Your task to perform on an android device: clear history in the chrome app Image 0: 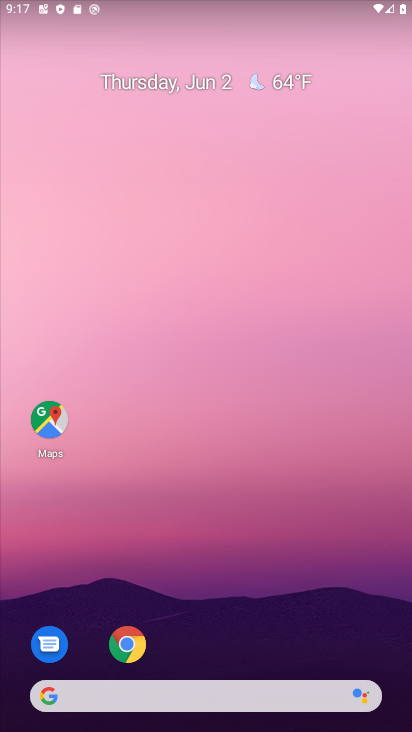
Step 0: press home button
Your task to perform on an android device: clear history in the chrome app Image 1: 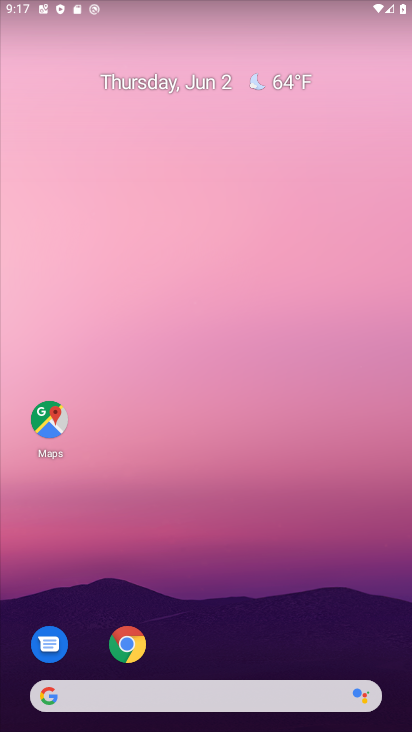
Step 1: click (118, 646)
Your task to perform on an android device: clear history in the chrome app Image 2: 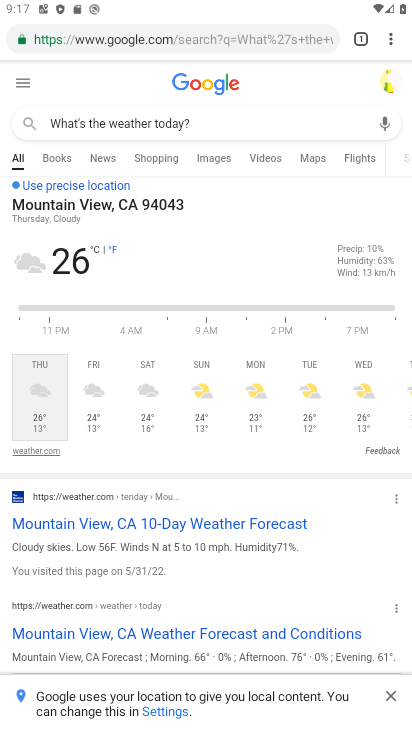
Step 2: drag from (389, 41) to (244, 235)
Your task to perform on an android device: clear history in the chrome app Image 3: 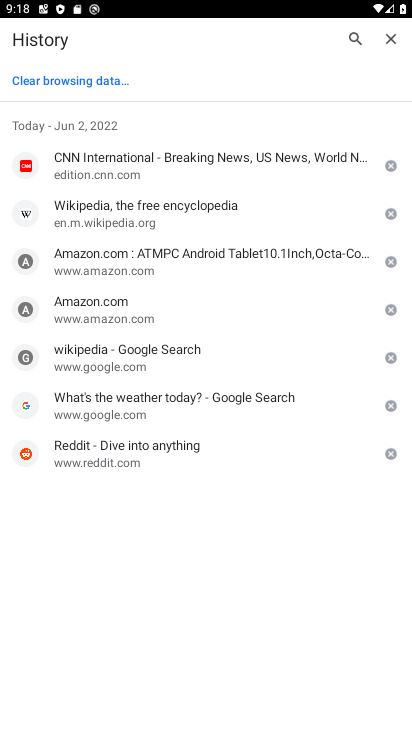
Step 3: click (63, 78)
Your task to perform on an android device: clear history in the chrome app Image 4: 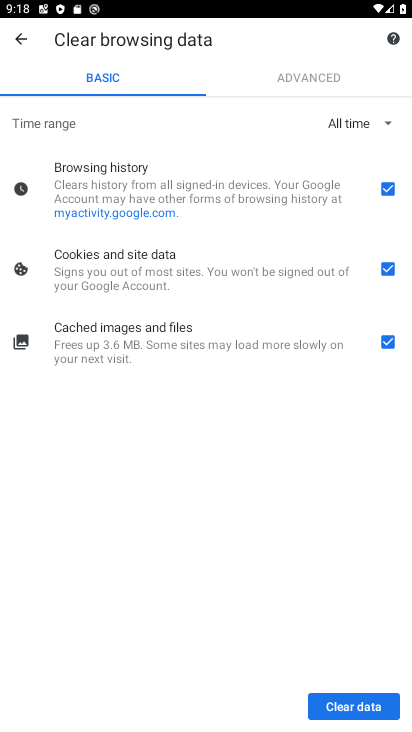
Step 4: click (337, 706)
Your task to perform on an android device: clear history in the chrome app Image 5: 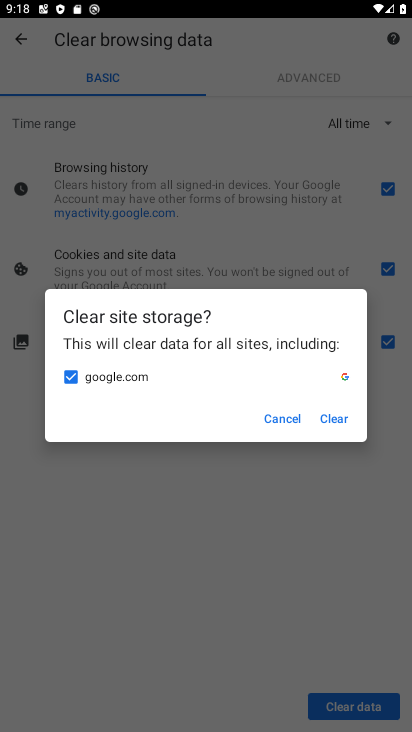
Step 5: click (340, 422)
Your task to perform on an android device: clear history in the chrome app Image 6: 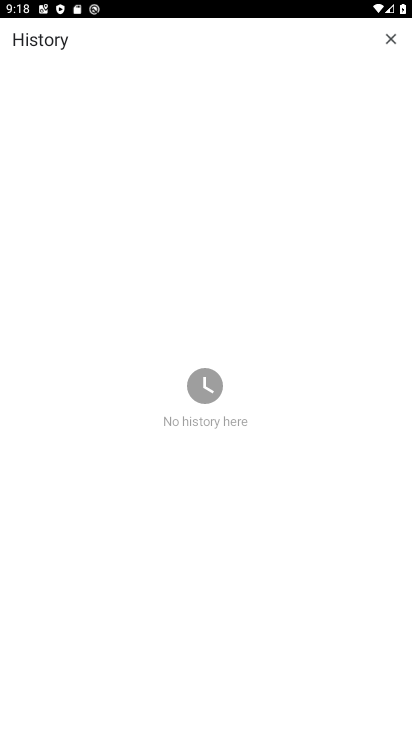
Step 6: task complete